Your task to perform on an android device: Add razer kraken to the cart on bestbuy.com, then select checkout. Image 0: 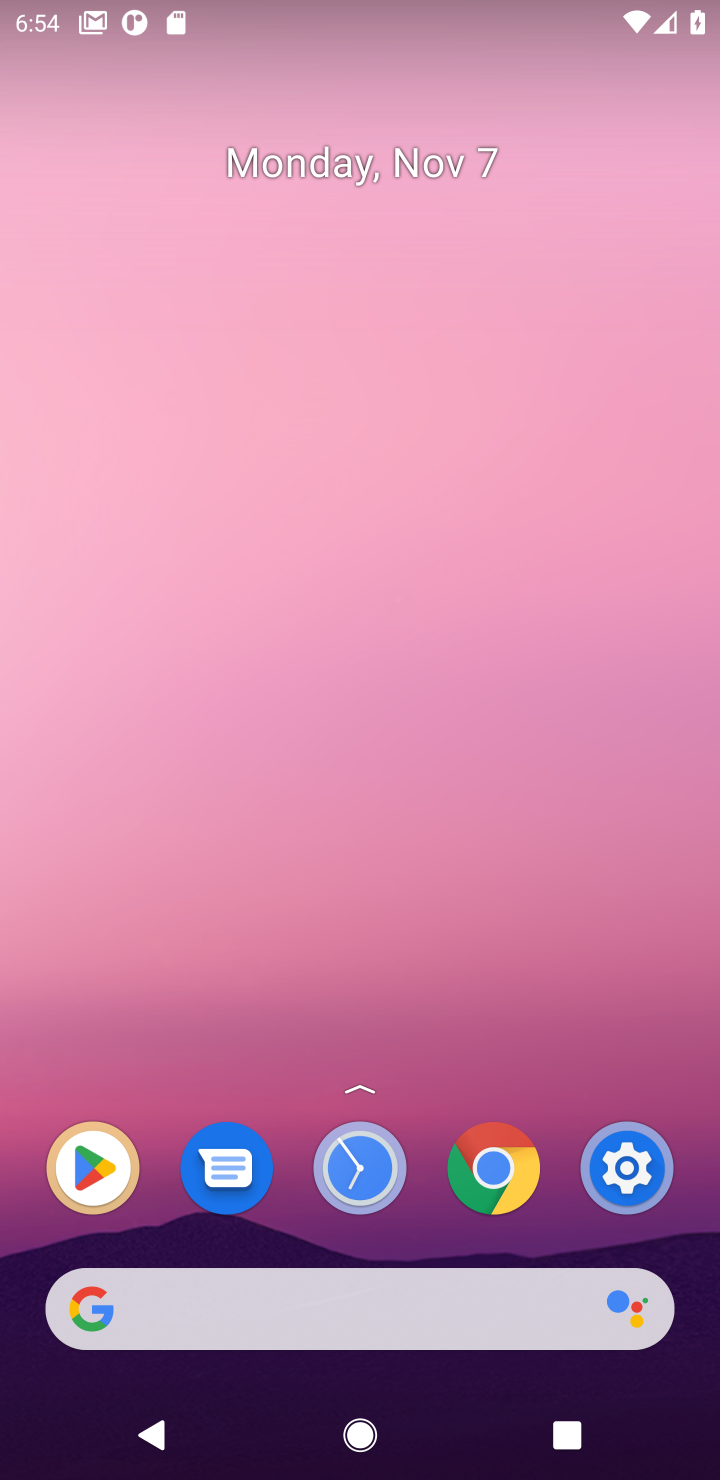
Step 0: click (497, 1174)
Your task to perform on an android device: Add razer kraken to the cart on bestbuy.com, then select checkout. Image 1: 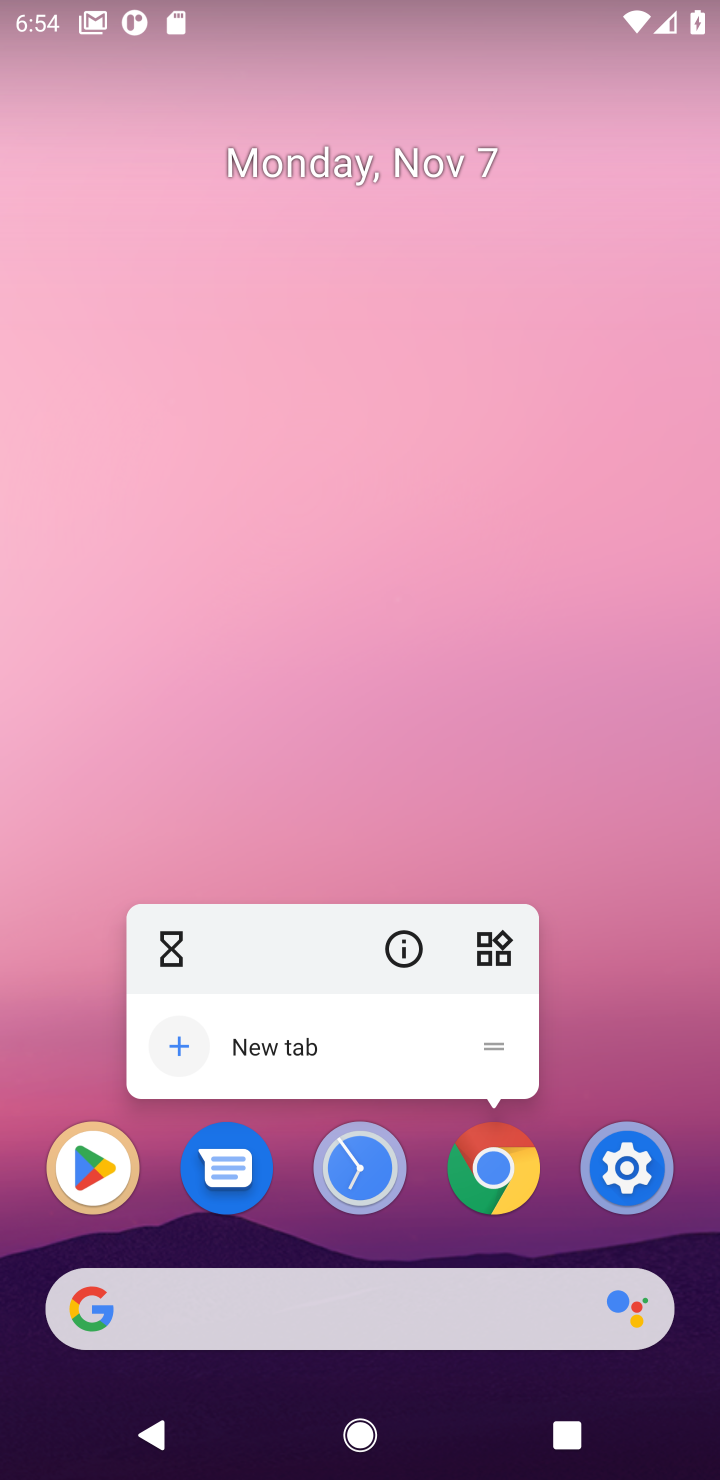
Step 1: click (497, 1174)
Your task to perform on an android device: Add razer kraken to the cart on bestbuy.com, then select checkout. Image 2: 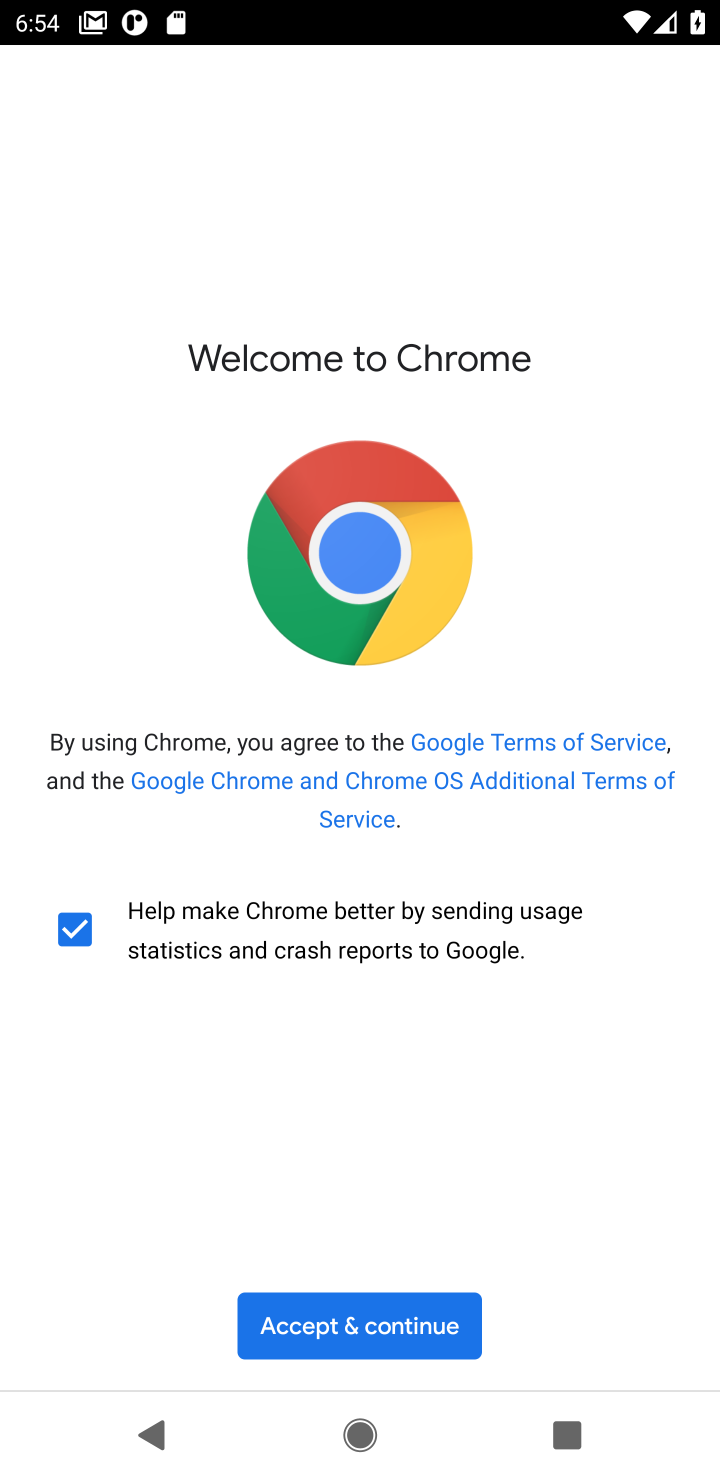
Step 2: click (408, 1323)
Your task to perform on an android device: Add razer kraken to the cart on bestbuy.com, then select checkout. Image 3: 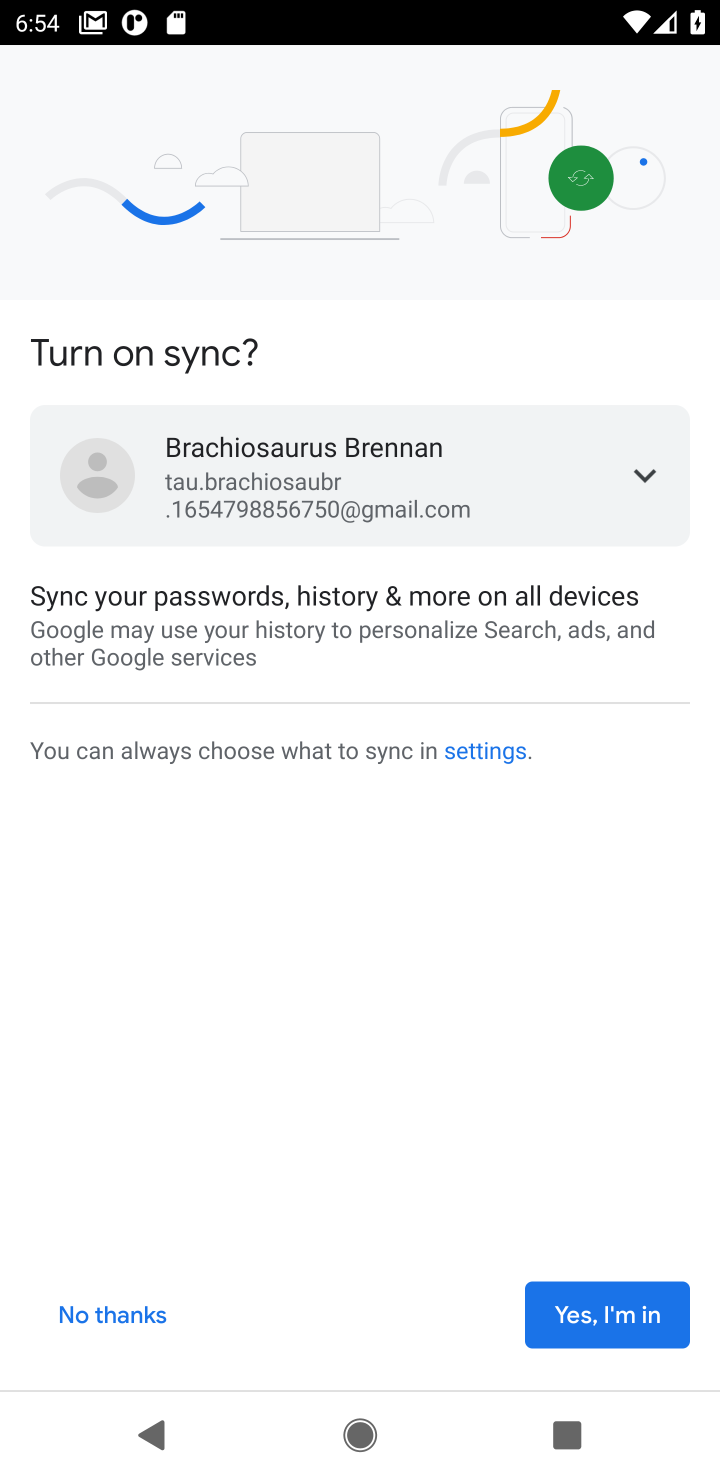
Step 3: click (641, 1305)
Your task to perform on an android device: Add razer kraken to the cart on bestbuy.com, then select checkout. Image 4: 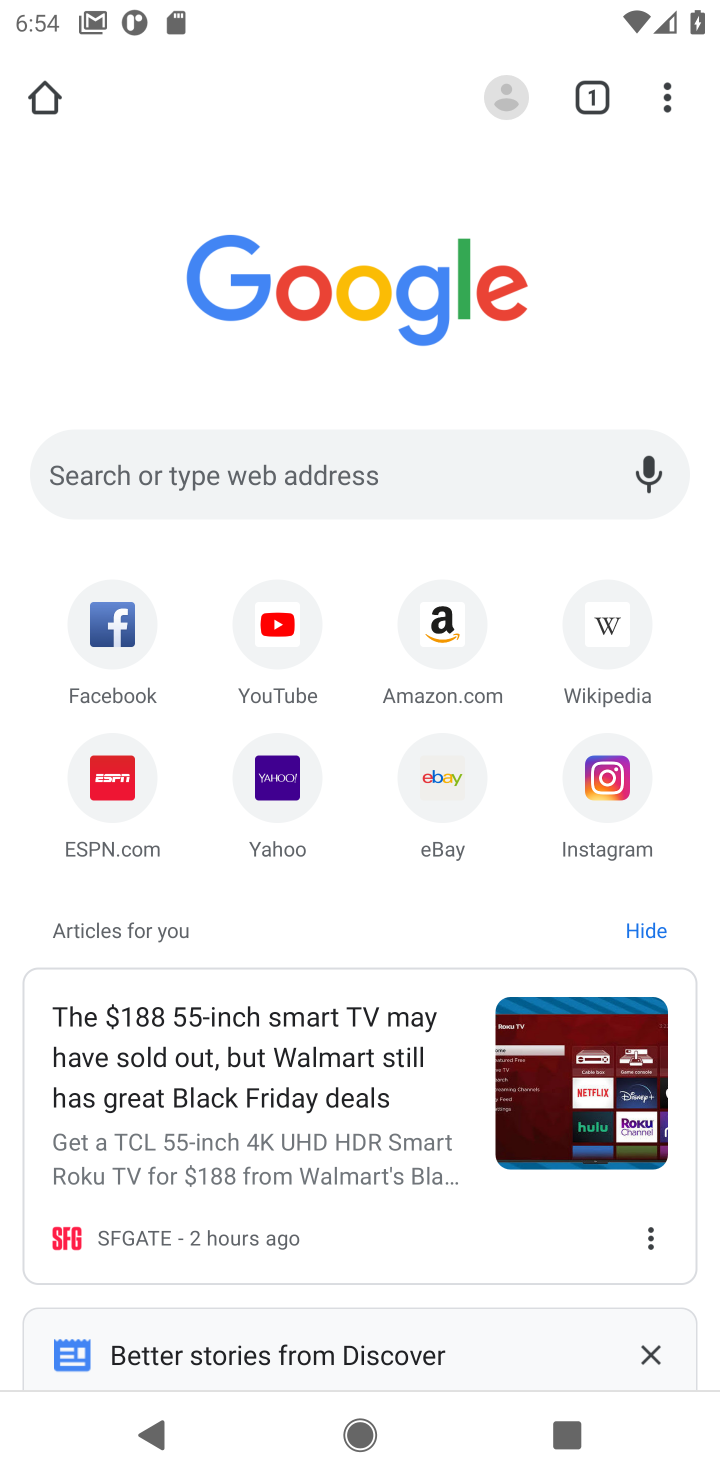
Step 4: click (520, 495)
Your task to perform on an android device: Add razer kraken to the cart on bestbuy.com, then select checkout. Image 5: 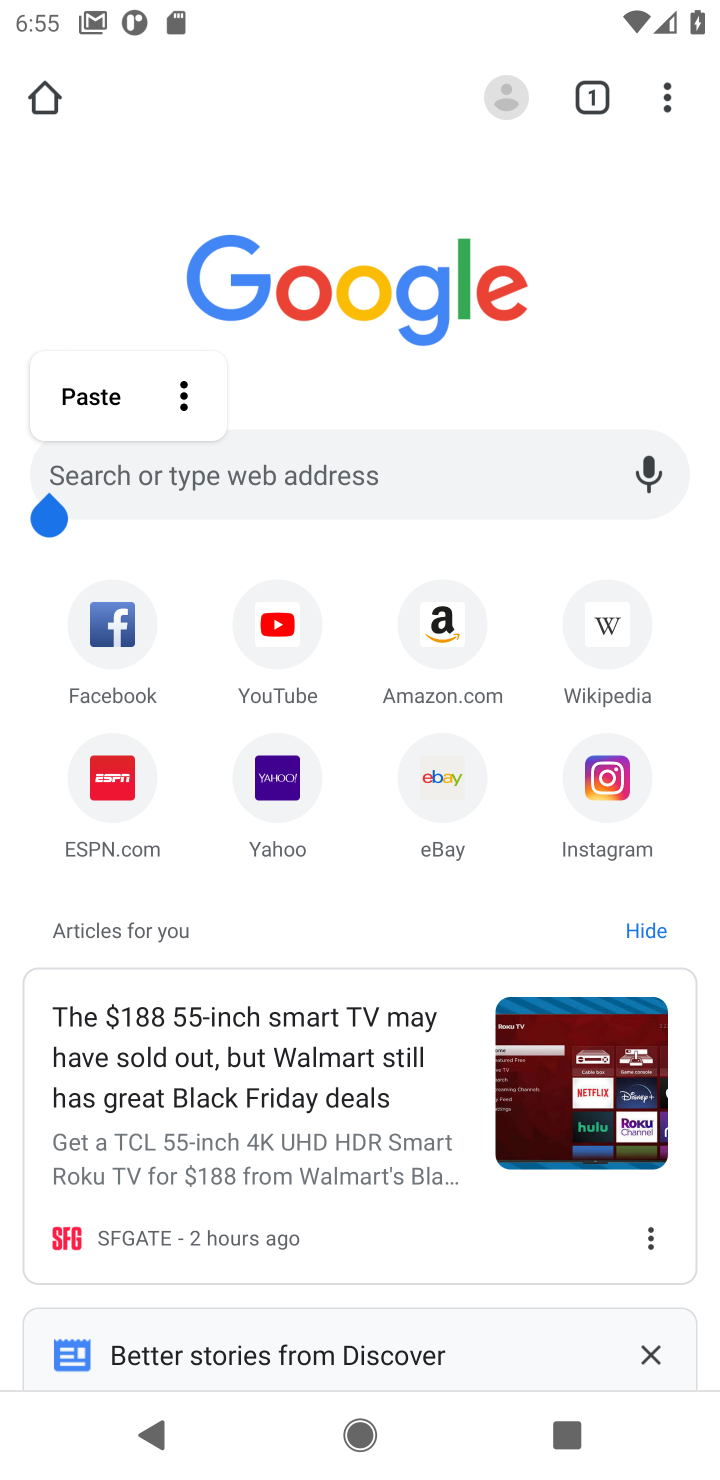
Step 5: type "bestbuy"
Your task to perform on an android device: Add razer kraken to the cart on bestbuy.com, then select checkout. Image 6: 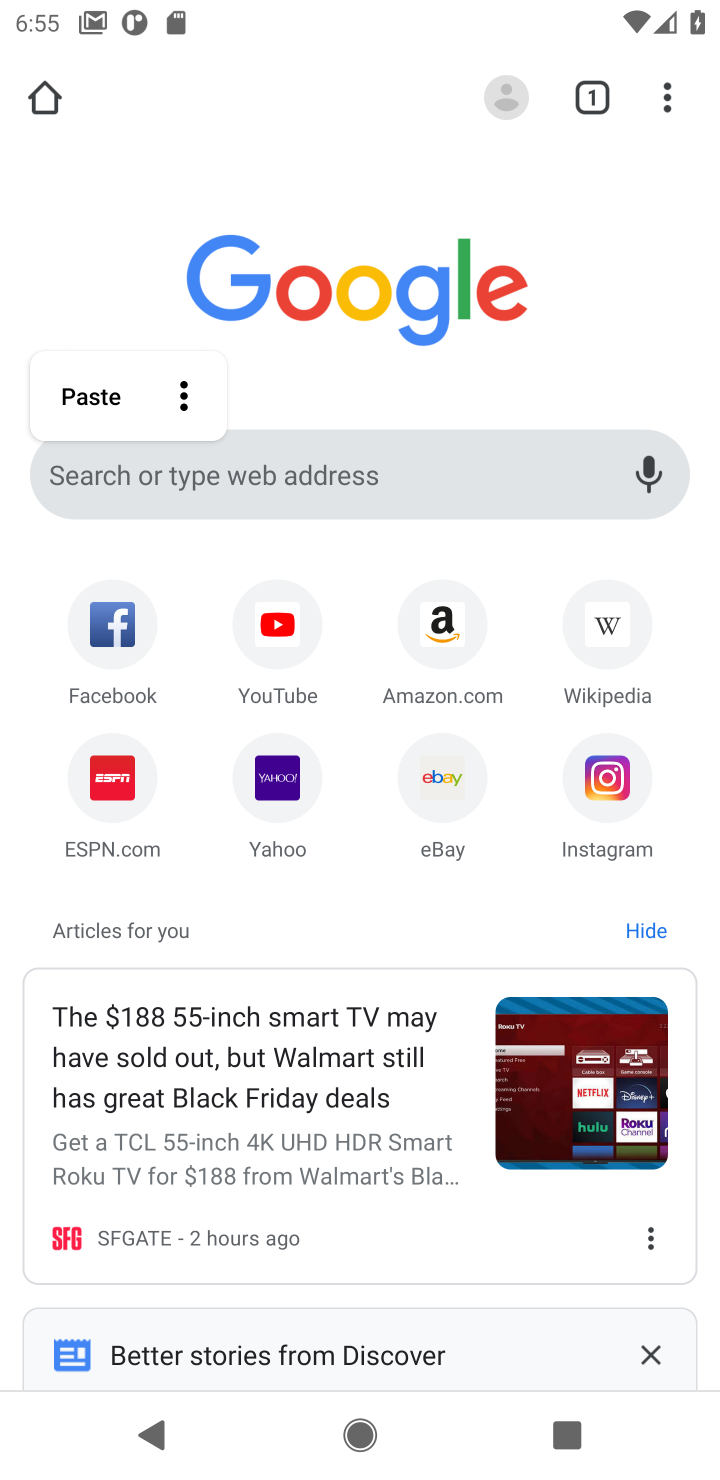
Step 6: press enter
Your task to perform on an android device: Add razer kraken to the cart on bestbuy.com, then select checkout. Image 7: 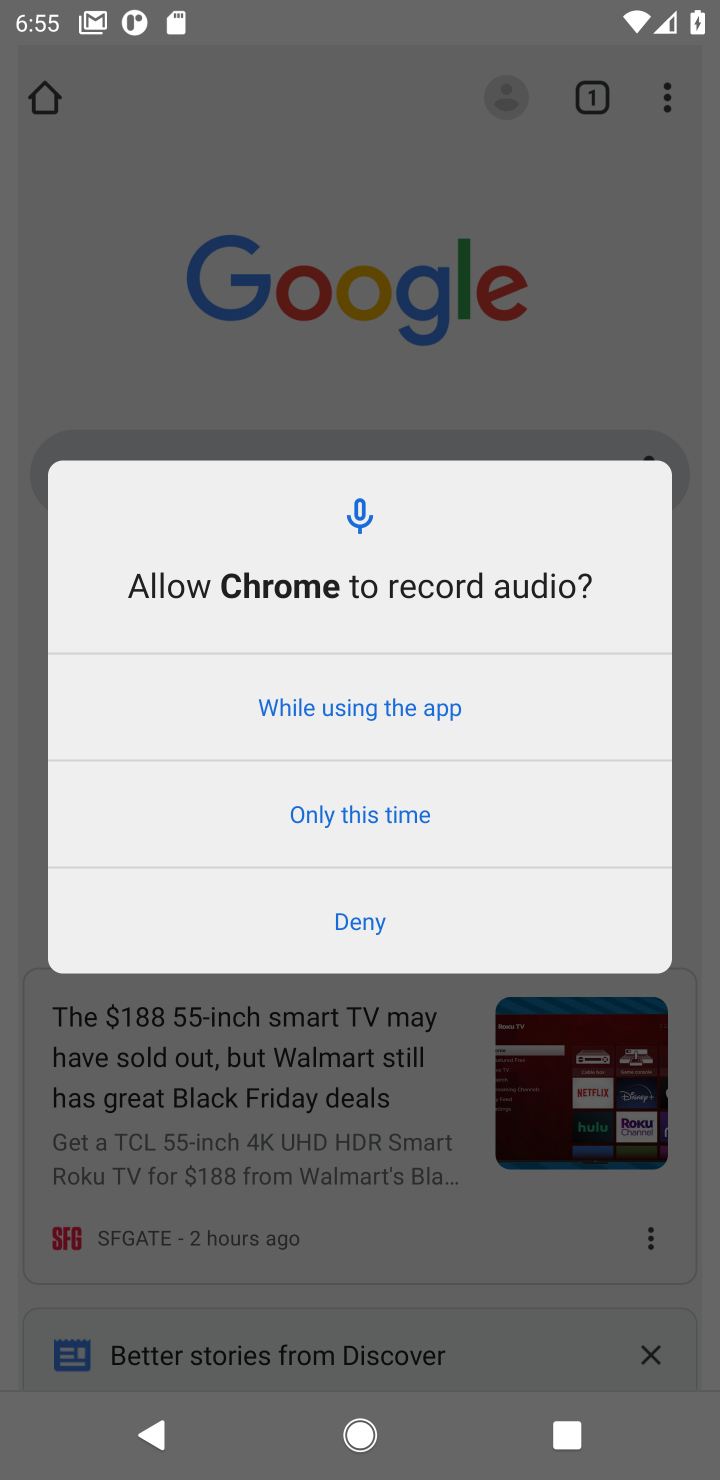
Step 7: click (515, 187)
Your task to perform on an android device: Add razer kraken to the cart on bestbuy.com, then select checkout. Image 8: 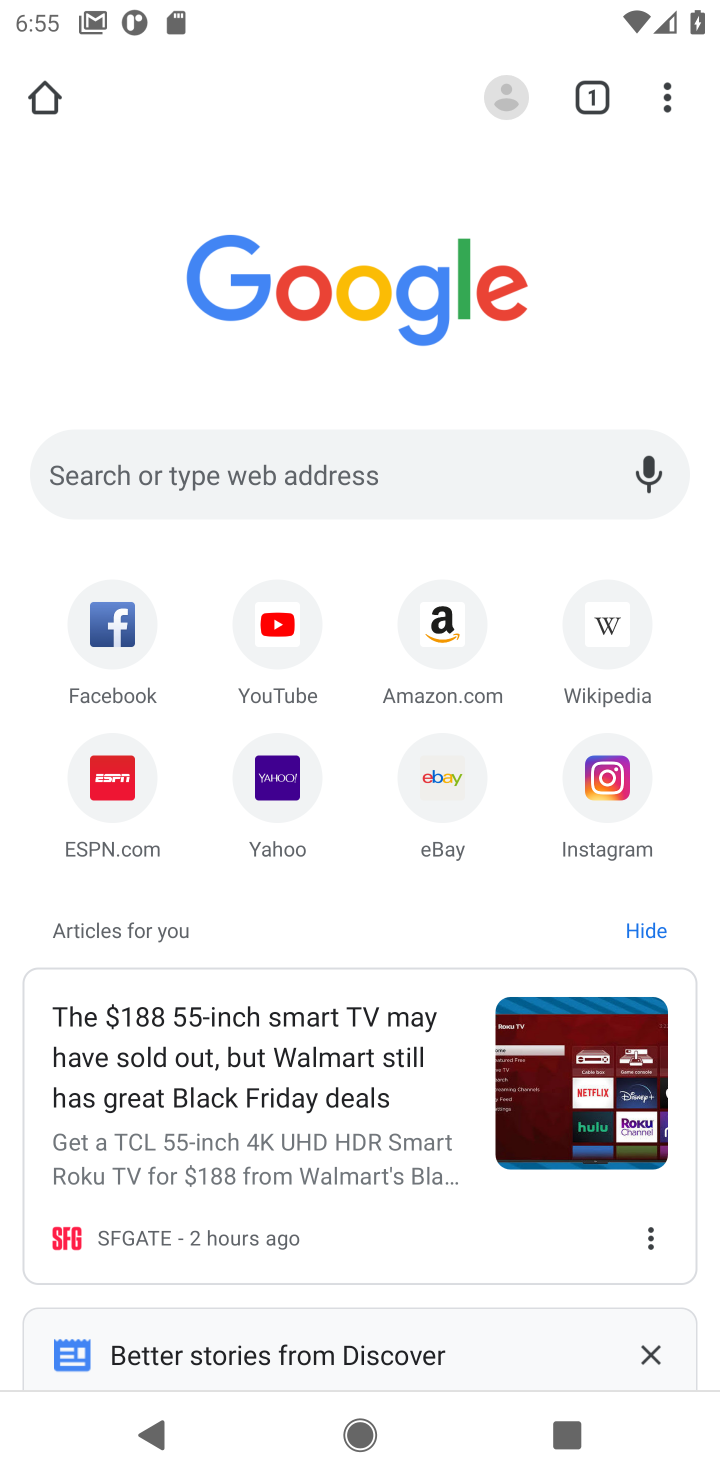
Step 8: click (502, 505)
Your task to perform on an android device: Add razer kraken to the cart on bestbuy.com, then select checkout. Image 9: 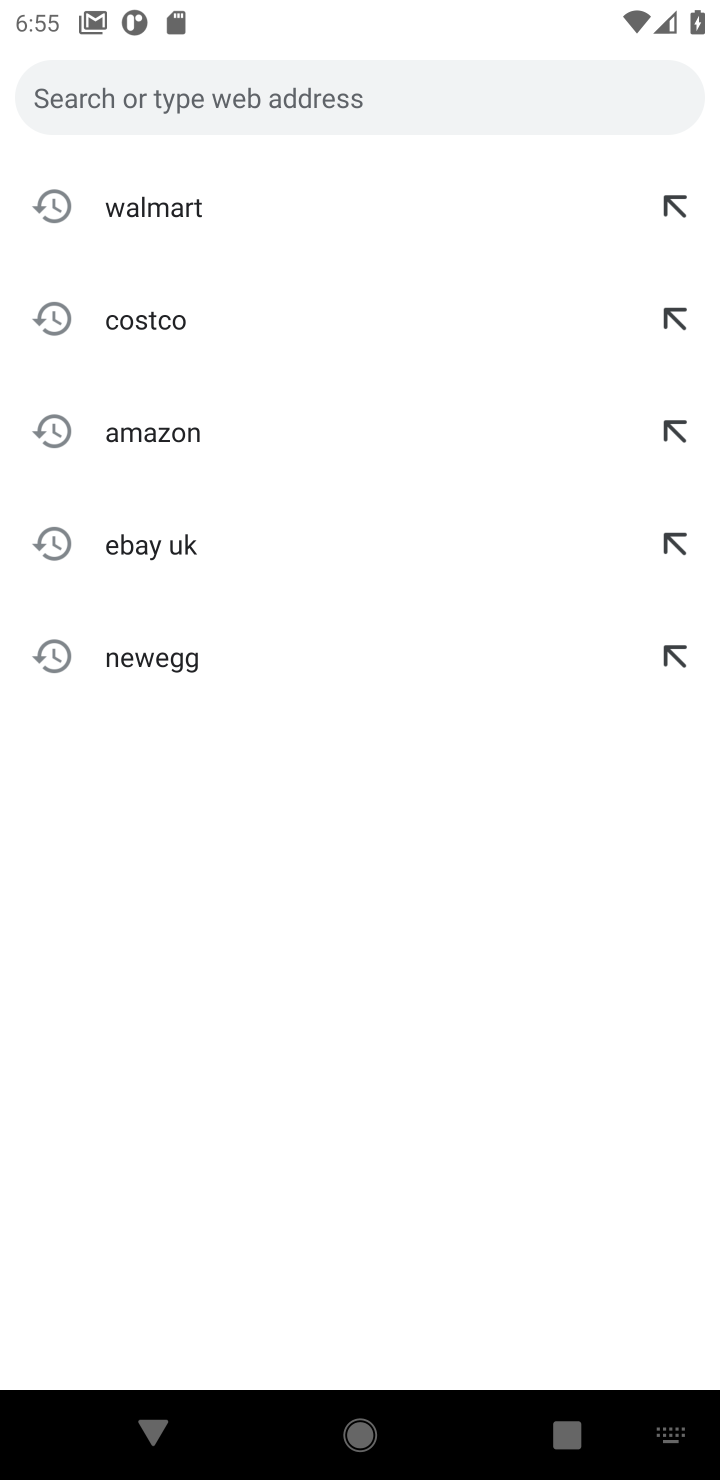
Step 9: type "bestbuy"
Your task to perform on an android device: Add razer kraken to the cart on bestbuy.com, then select checkout. Image 10: 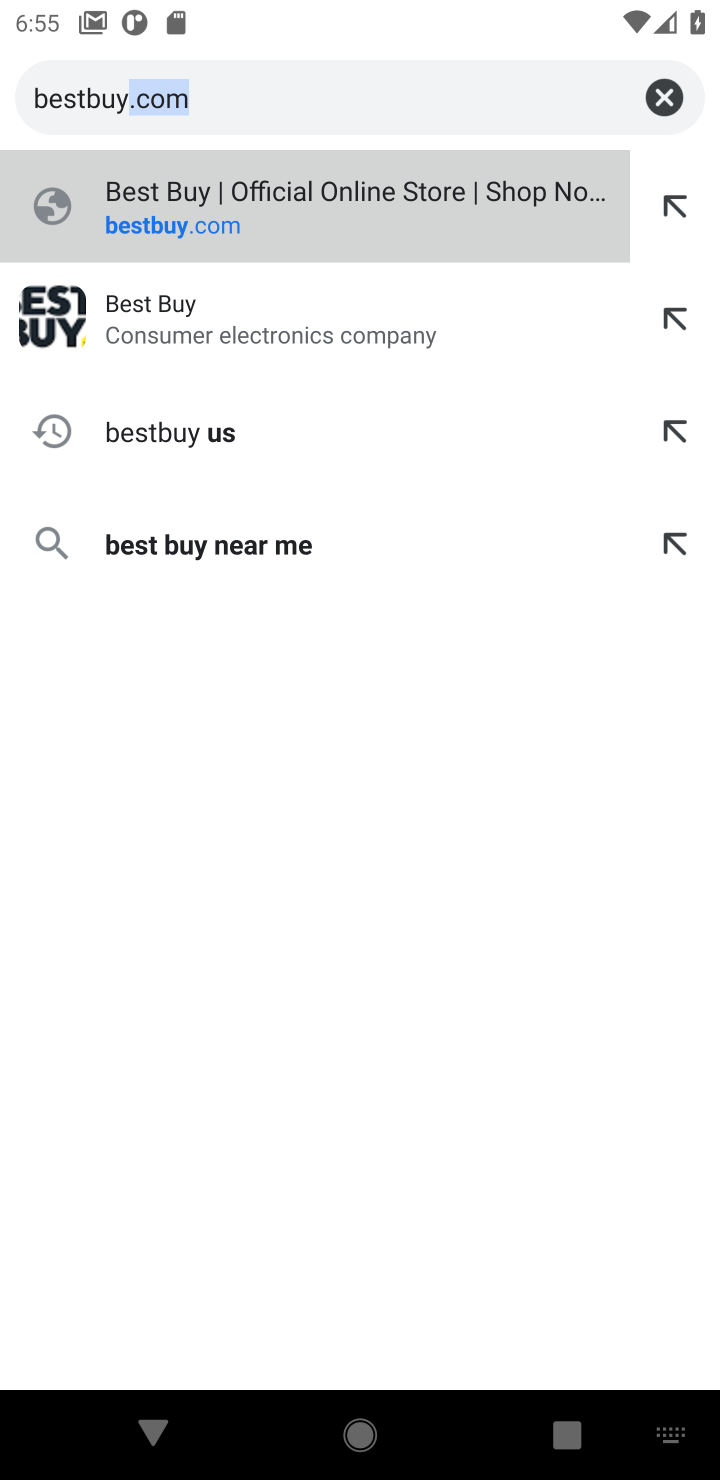
Step 10: press enter
Your task to perform on an android device: Add razer kraken to the cart on bestbuy.com, then select checkout. Image 11: 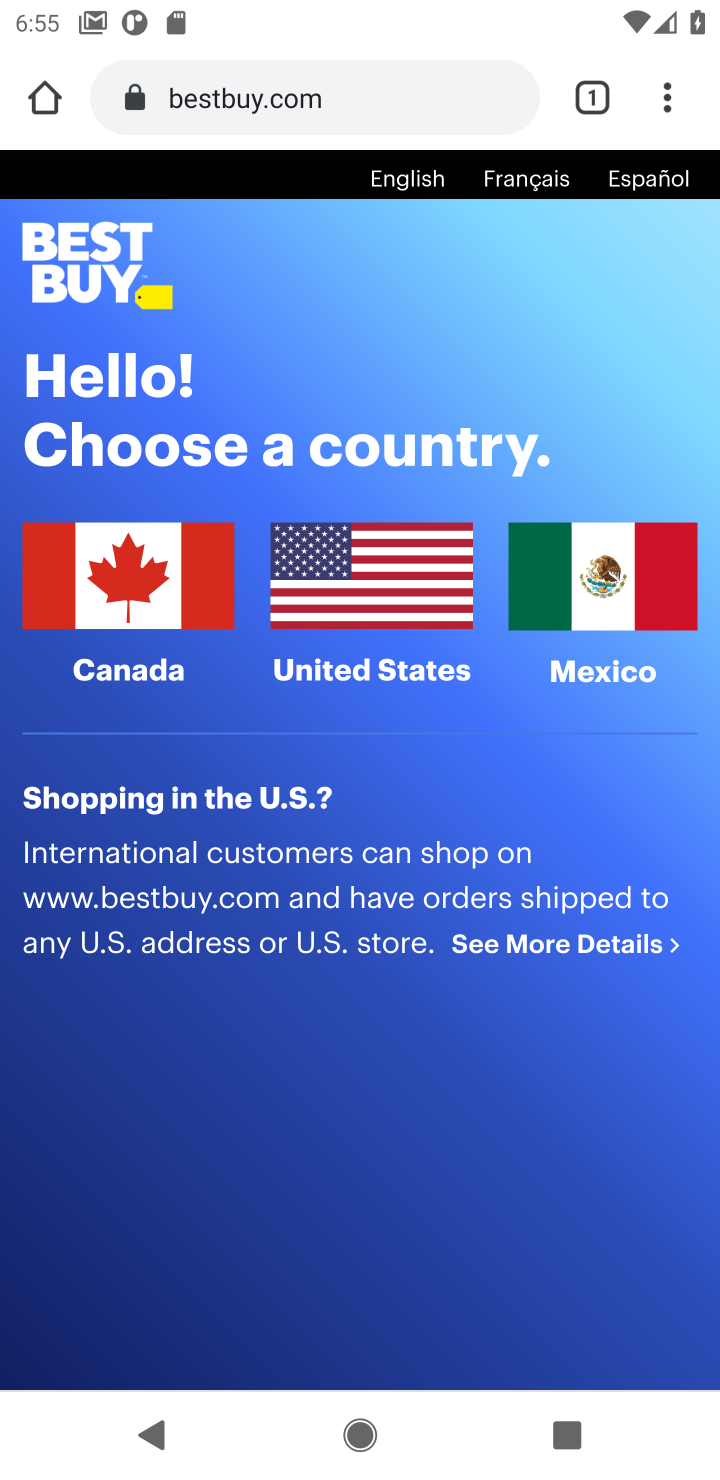
Step 11: click (333, 581)
Your task to perform on an android device: Add razer kraken to the cart on bestbuy.com, then select checkout. Image 12: 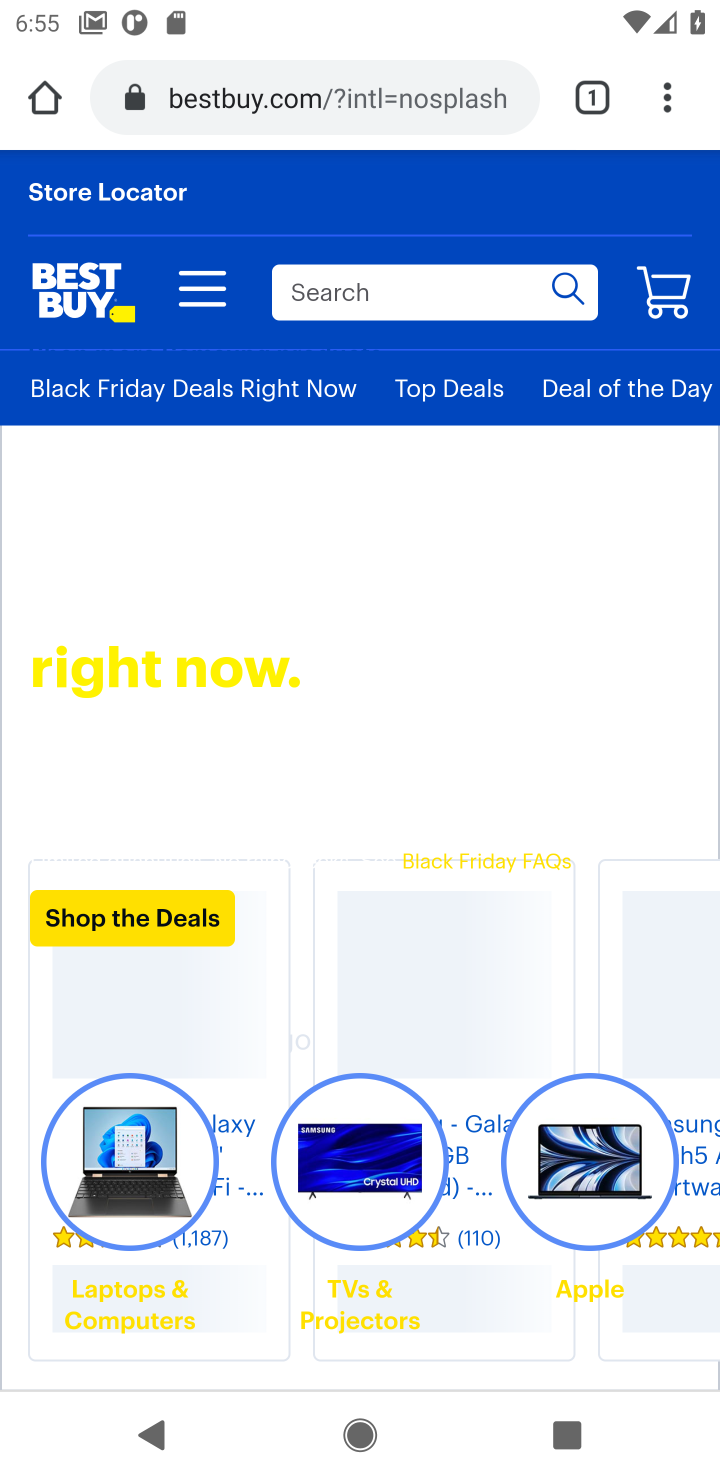
Step 12: click (455, 283)
Your task to perform on an android device: Add razer kraken to the cart on bestbuy.com, then select checkout. Image 13: 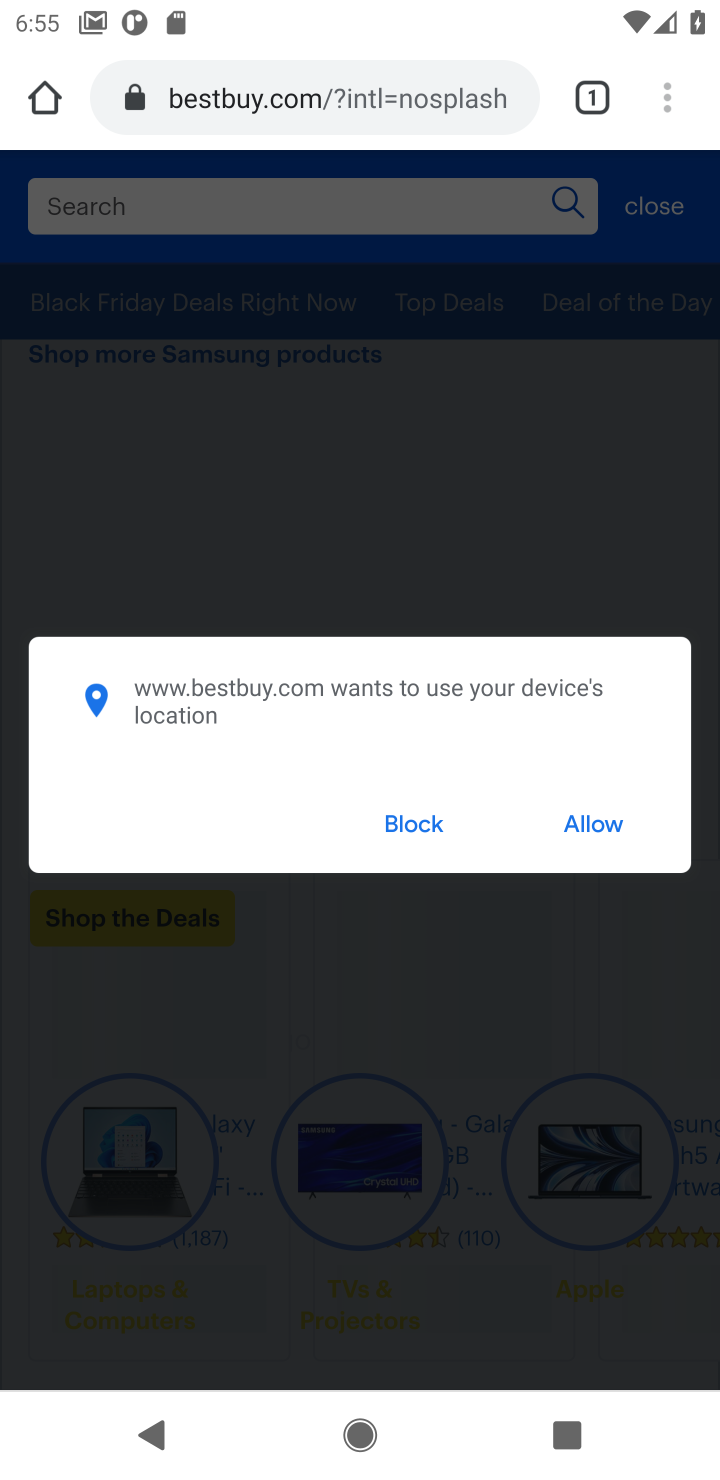
Step 13: click (410, 830)
Your task to perform on an android device: Add razer kraken to the cart on bestbuy.com, then select checkout. Image 14: 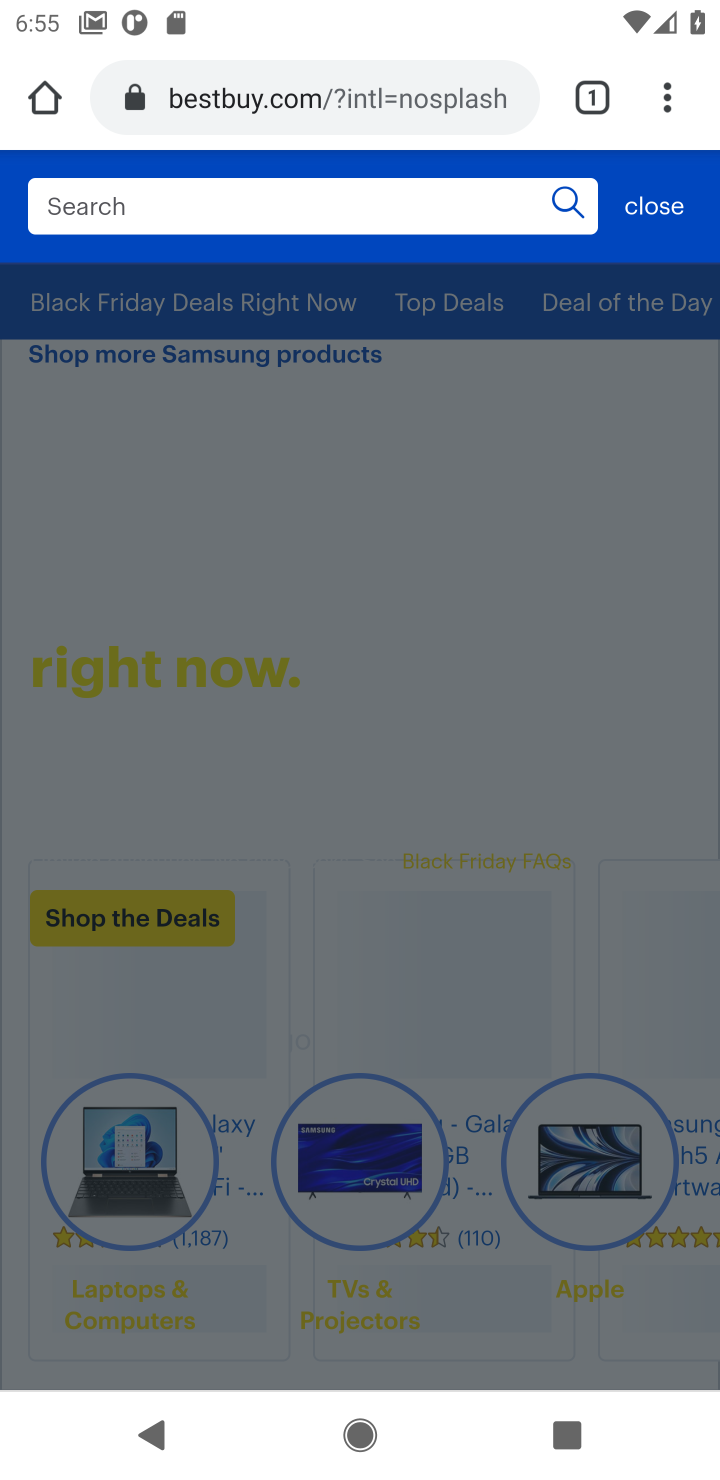
Step 14: click (461, 204)
Your task to perform on an android device: Add razer kraken to the cart on bestbuy.com, then select checkout. Image 15: 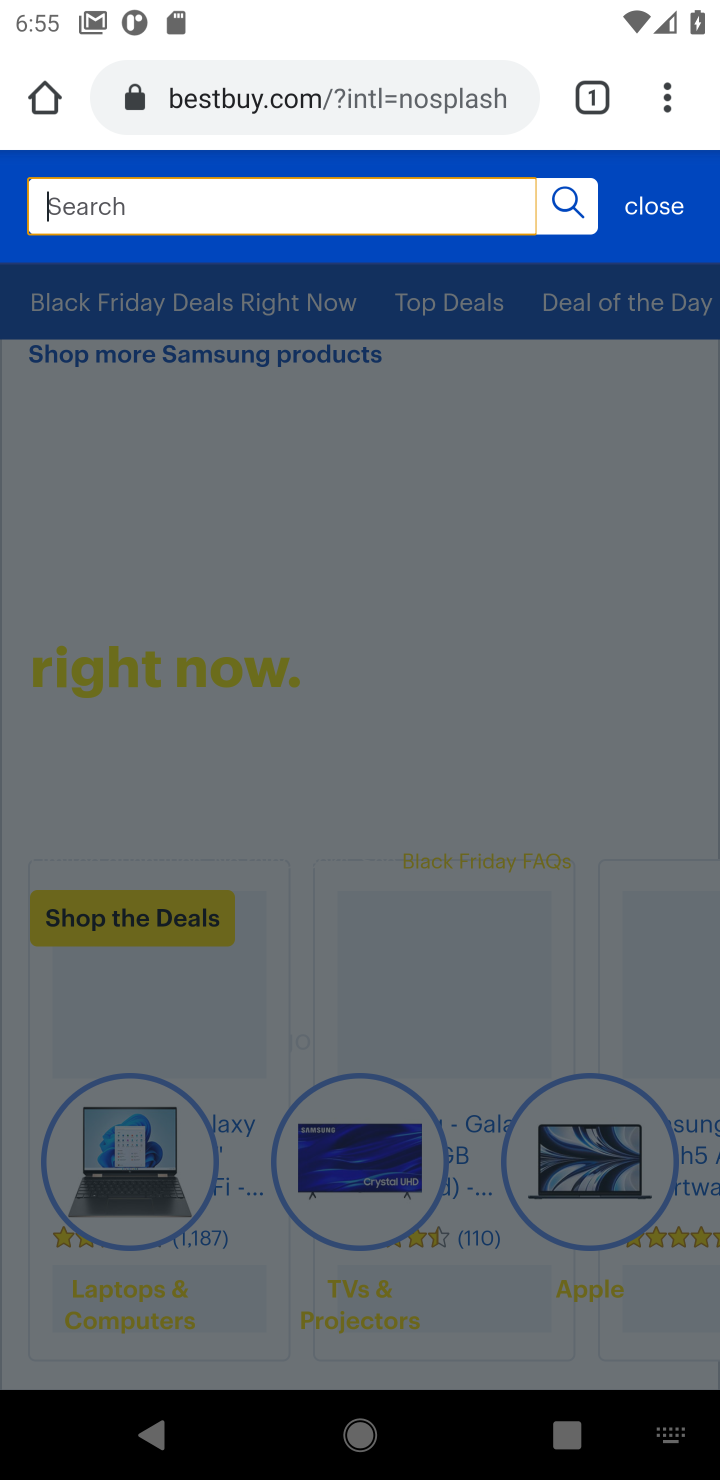
Step 15: press enter
Your task to perform on an android device: Add razer kraken to the cart on bestbuy.com, then select checkout. Image 16: 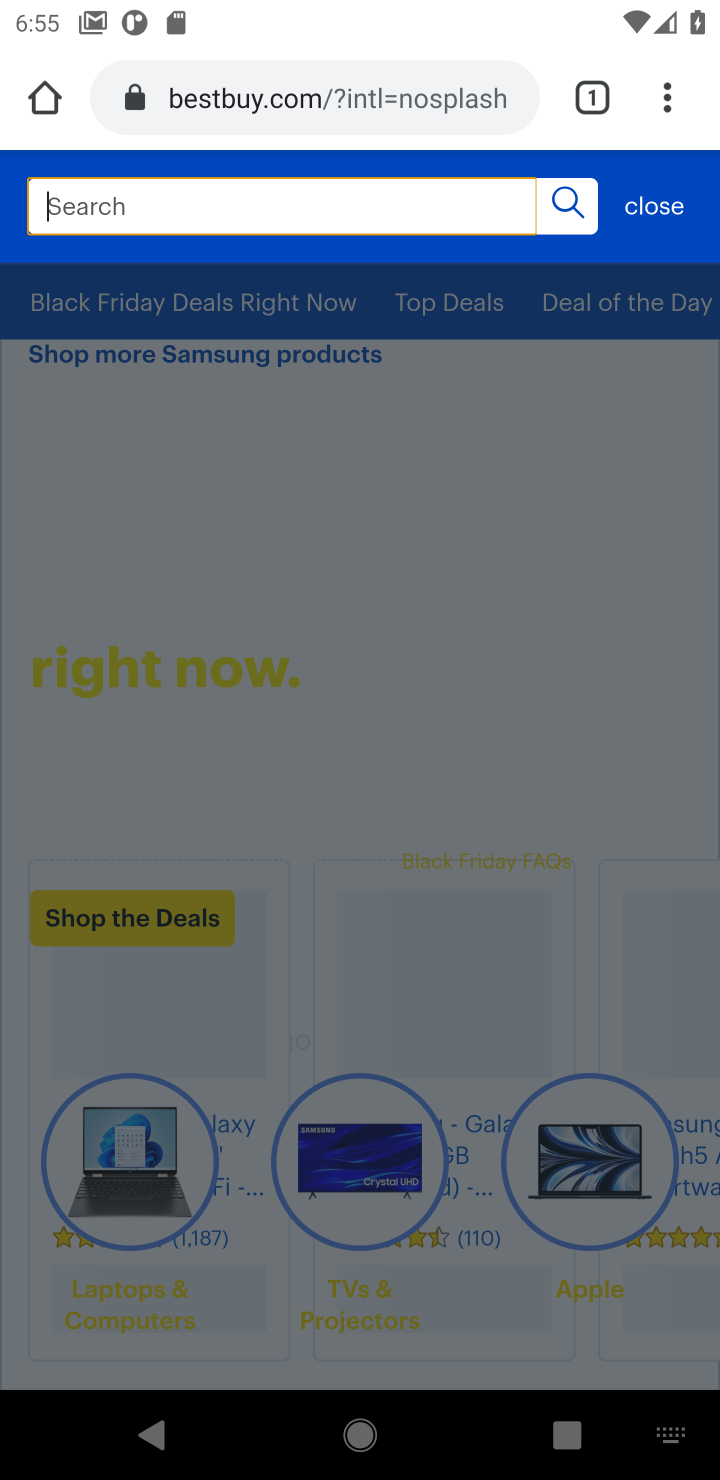
Step 16: type "razer kraken"
Your task to perform on an android device: Add razer kraken to the cart on bestbuy.com, then select checkout. Image 17: 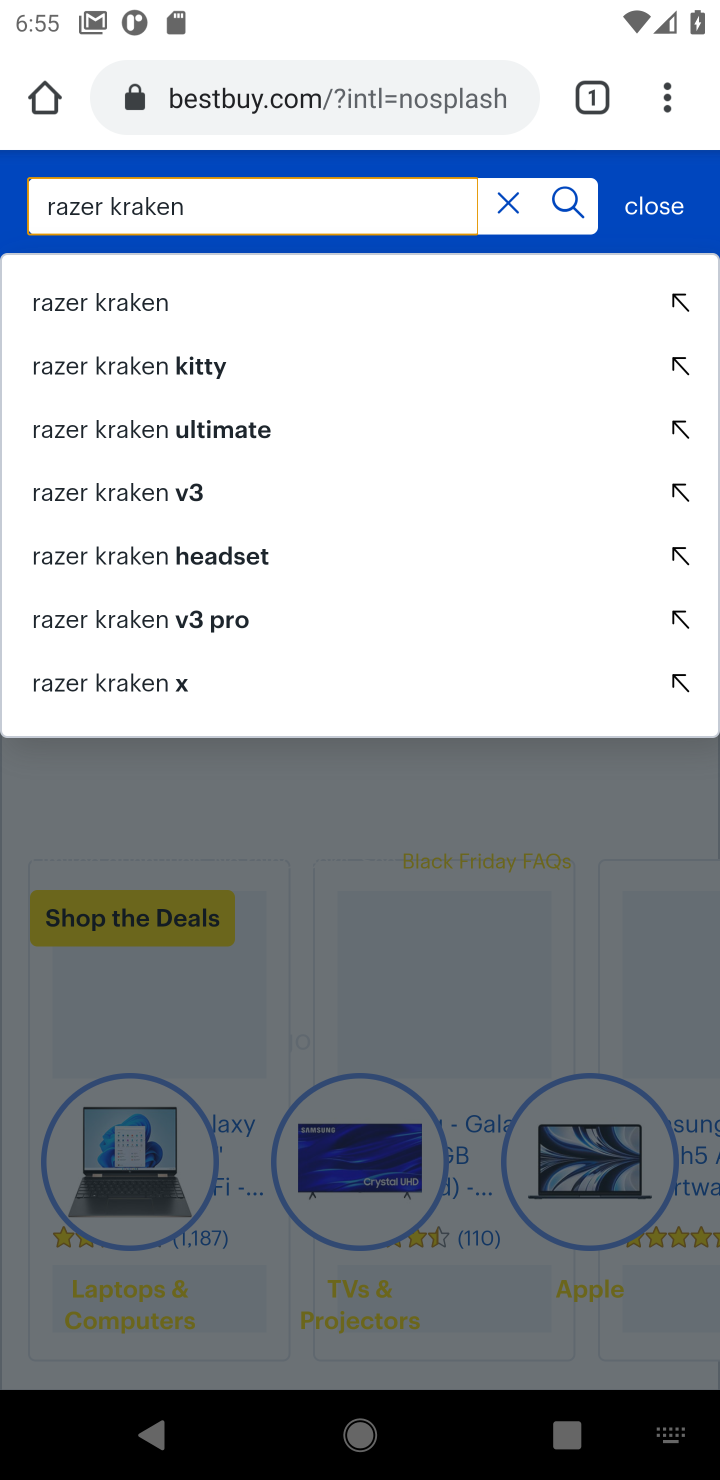
Step 17: click (93, 300)
Your task to perform on an android device: Add razer kraken to the cart on bestbuy.com, then select checkout. Image 18: 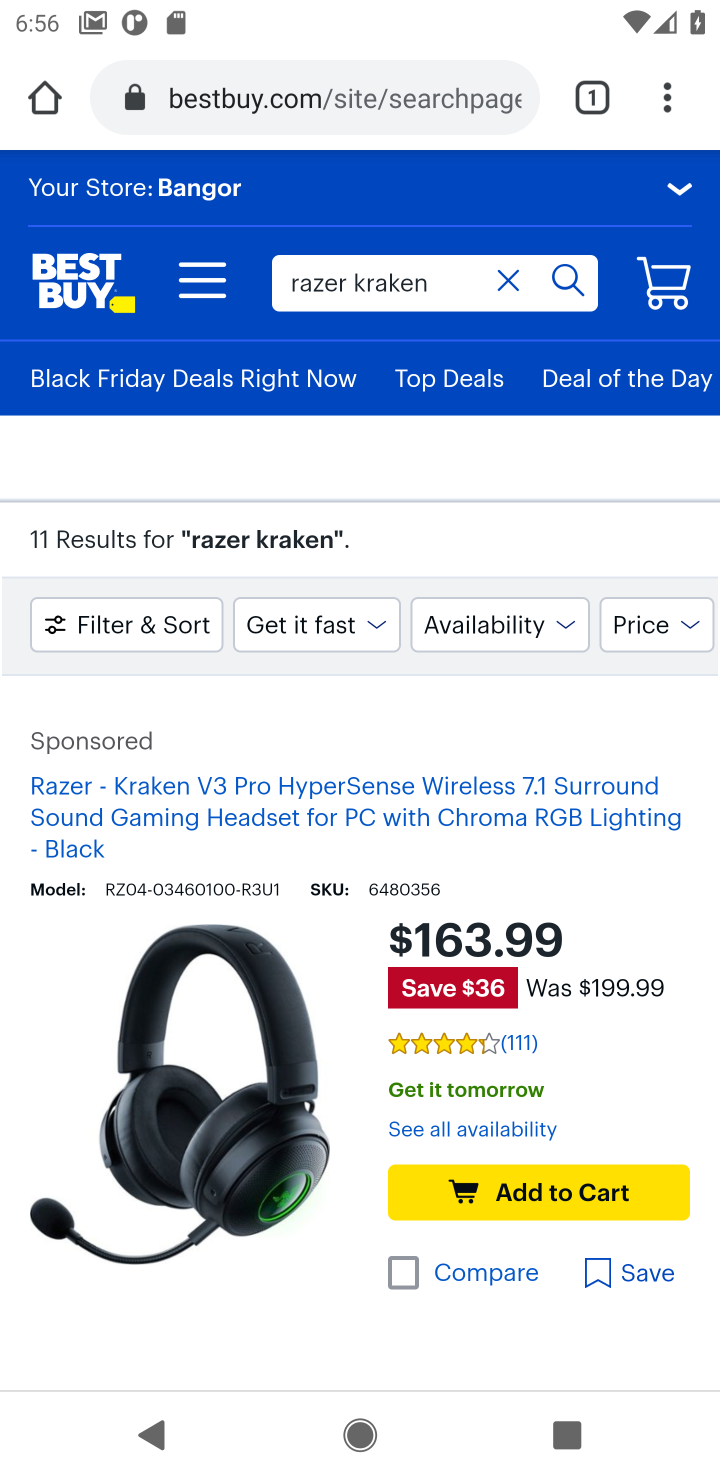
Step 18: click (185, 1092)
Your task to perform on an android device: Add razer kraken to the cart on bestbuy.com, then select checkout. Image 19: 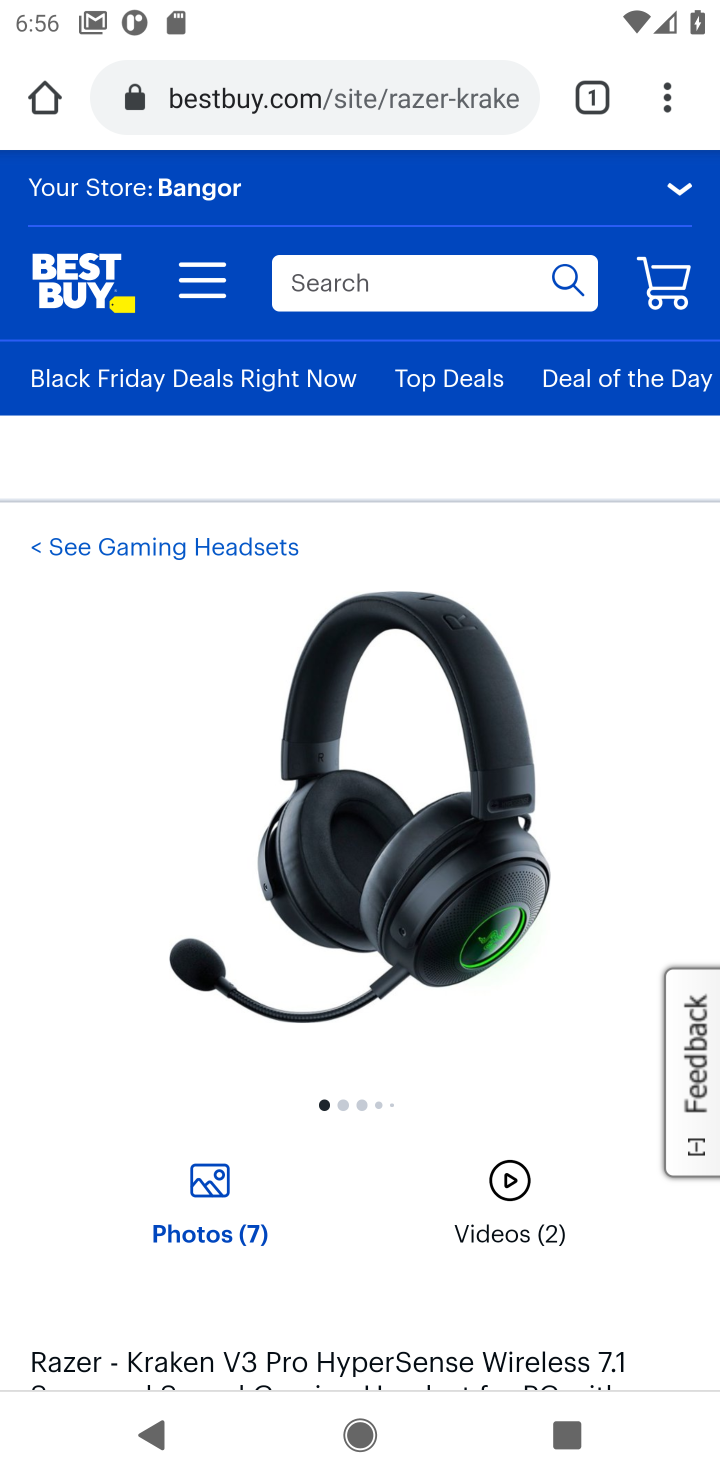
Step 19: drag from (599, 1124) to (624, 609)
Your task to perform on an android device: Add razer kraken to the cart on bestbuy.com, then select checkout. Image 20: 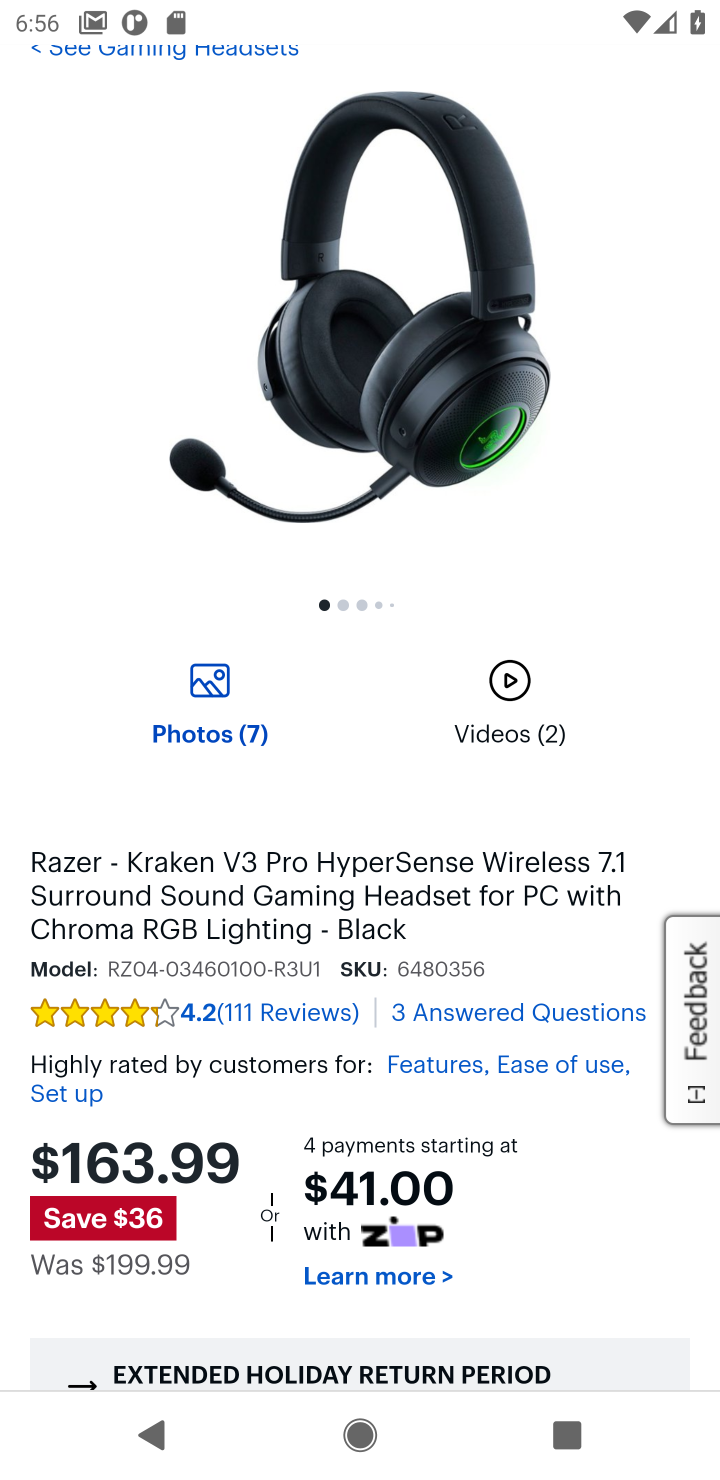
Step 20: drag from (590, 1004) to (584, 711)
Your task to perform on an android device: Add razer kraken to the cart on bestbuy.com, then select checkout. Image 21: 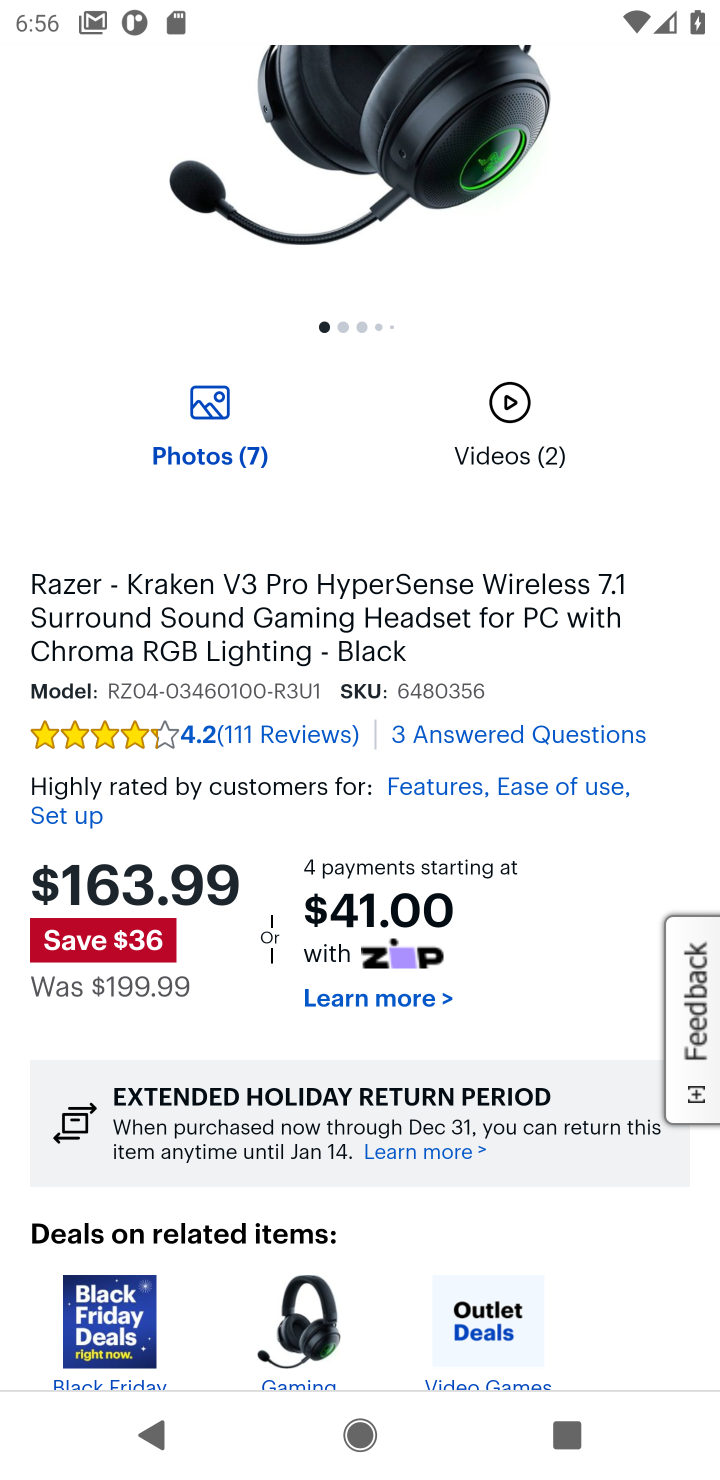
Step 21: drag from (588, 1228) to (614, 522)
Your task to perform on an android device: Add razer kraken to the cart on bestbuy.com, then select checkout. Image 22: 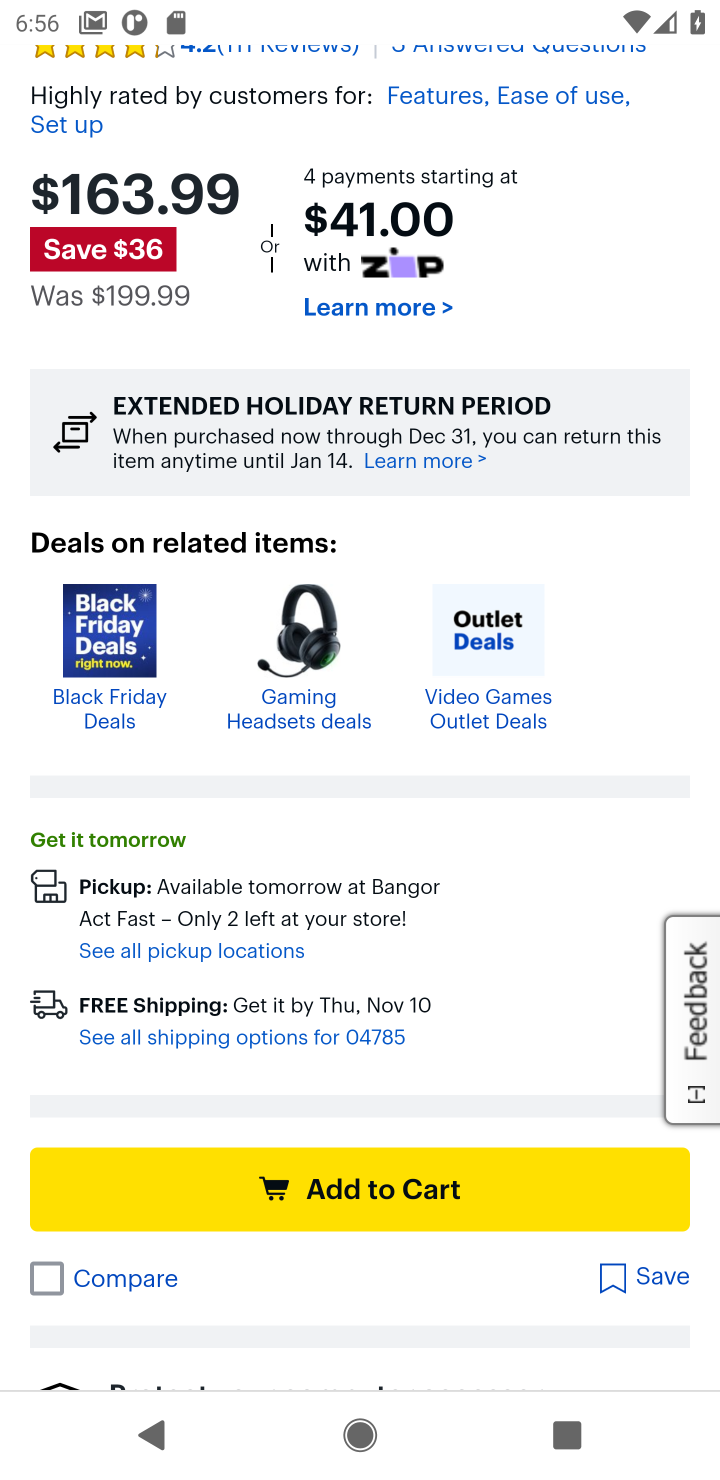
Step 22: click (417, 1175)
Your task to perform on an android device: Add razer kraken to the cart on bestbuy.com, then select checkout. Image 23: 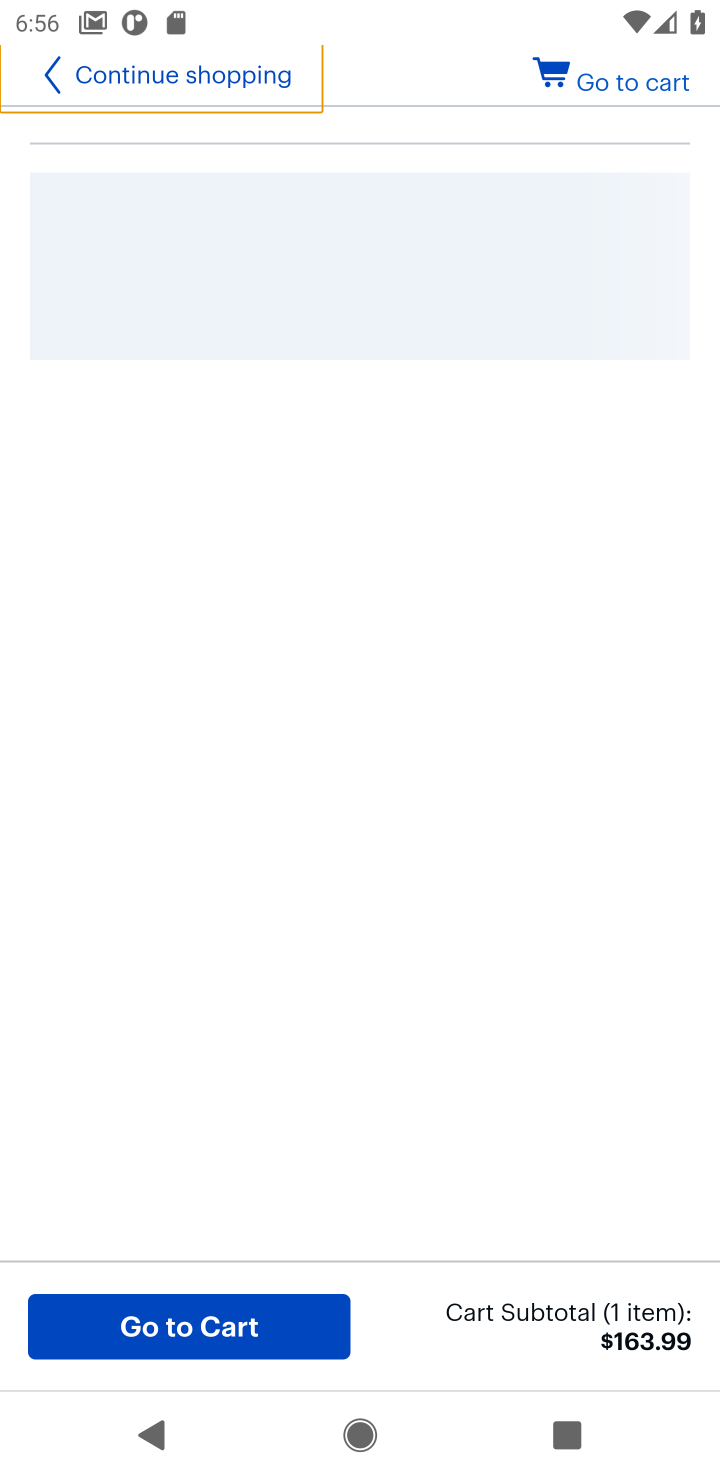
Step 23: click (221, 1335)
Your task to perform on an android device: Add razer kraken to the cart on bestbuy.com, then select checkout. Image 24: 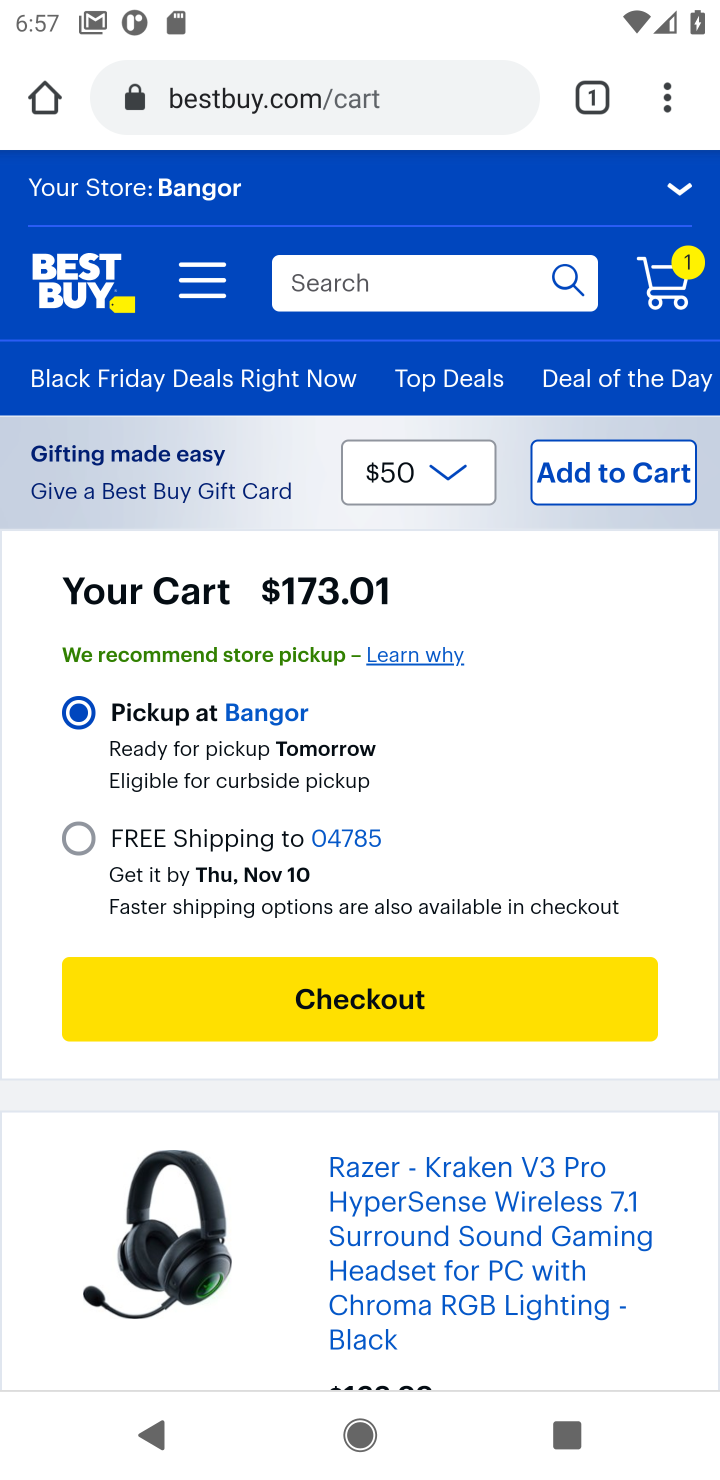
Step 24: click (450, 999)
Your task to perform on an android device: Add razer kraken to the cart on bestbuy.com, then select checkout. Image 25: 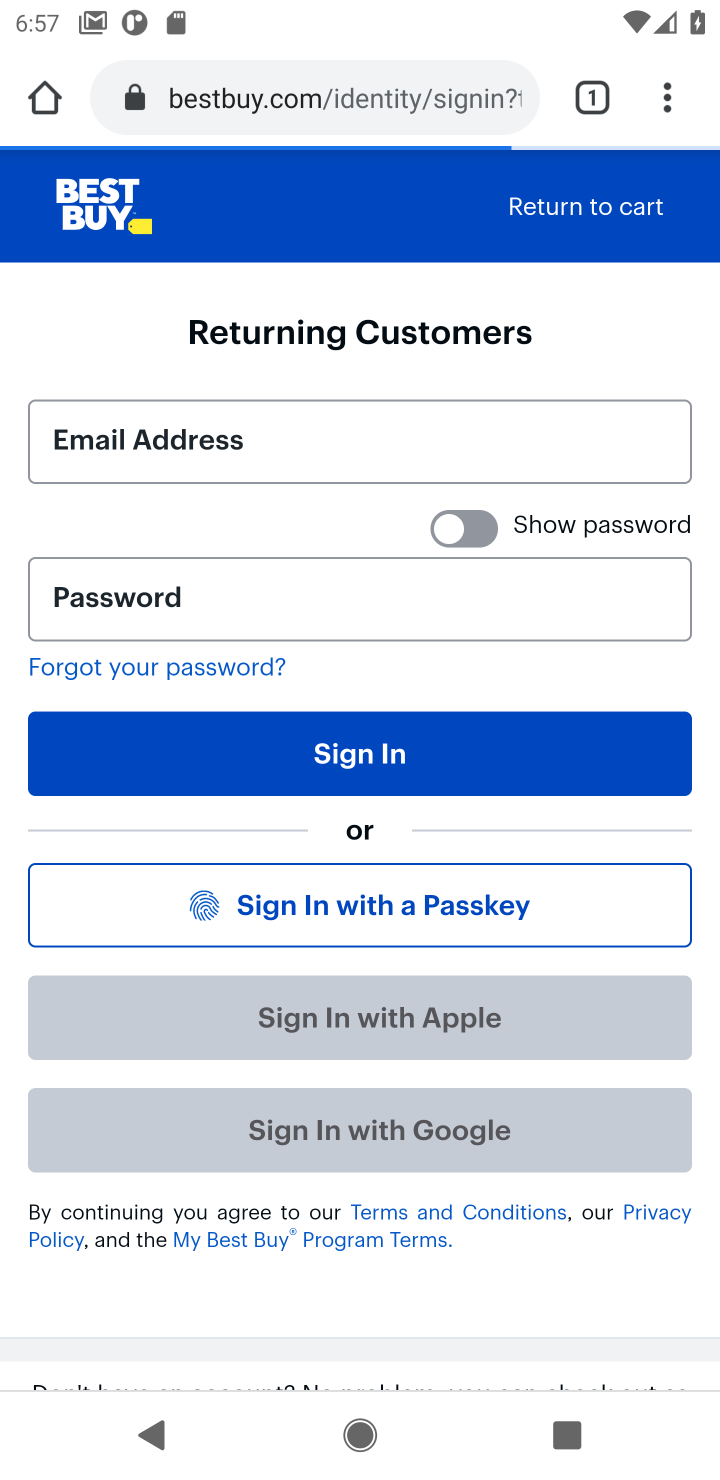
Step 25: task complete